Your task to perform on an android device: check the backup settings in the google photos Image 0: 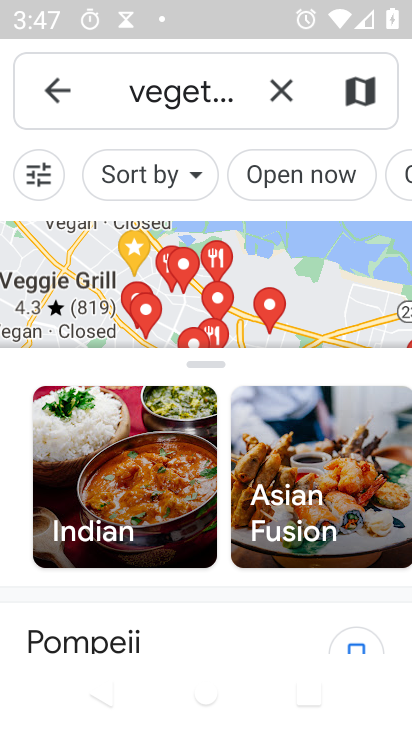
Step 0: press home button
Your task to perform on an android device: check the backup settings in the google photos Image 1: 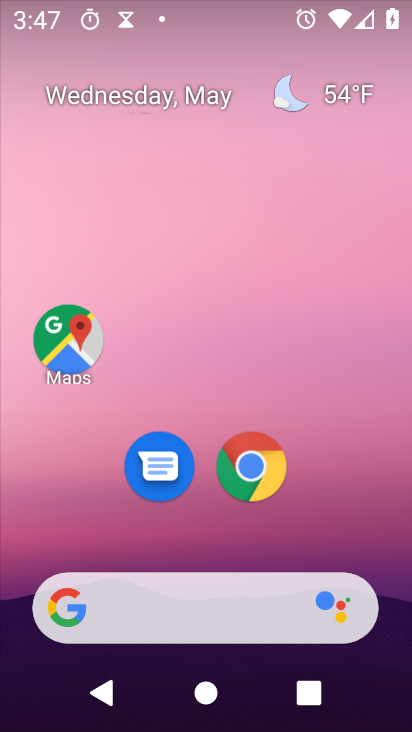
Step 1: drag from (370, 540) to (223, 84)
Your task to perform on an android device: check the backup settings in the google photos Image 2: 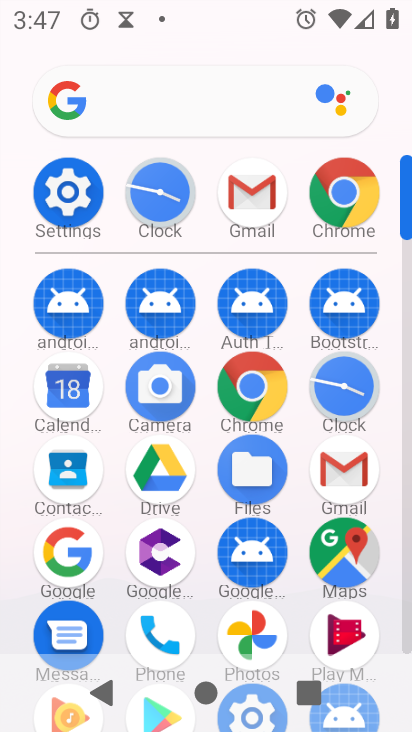
Step 2: click (243, 644)
Your task to perform on an android device: check the backup settings in the google photos Image 3: 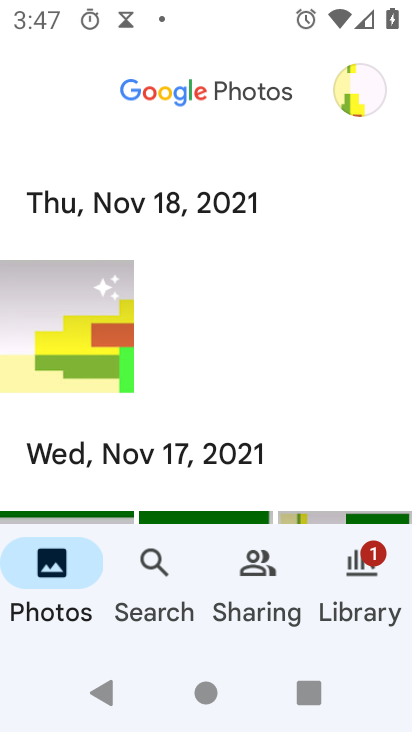
Step 3: click (371, 60)
Your task to perform on an android device: check the backup settings in the google photos Image 4: 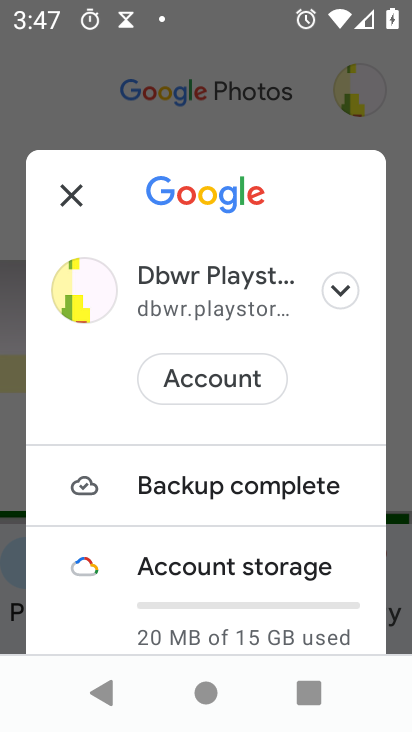
Step 4: click (237, 498)
Your task to perform on an android device: check the backup settings in the google photos Image 5: 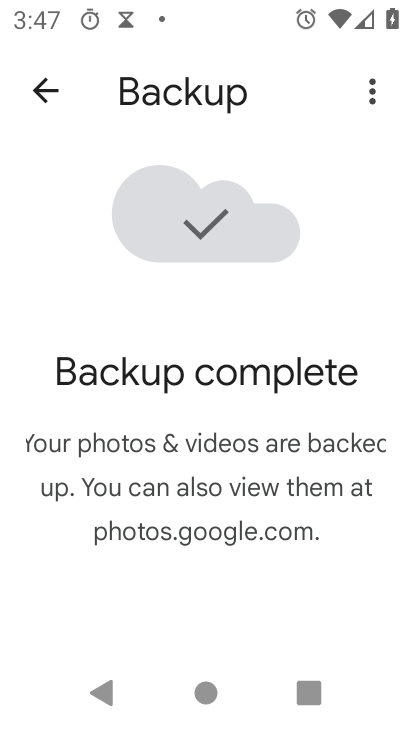
Step 5: click (41, 87)
Your task to perform on an android device: check the backup settings in the google photos Image 6: 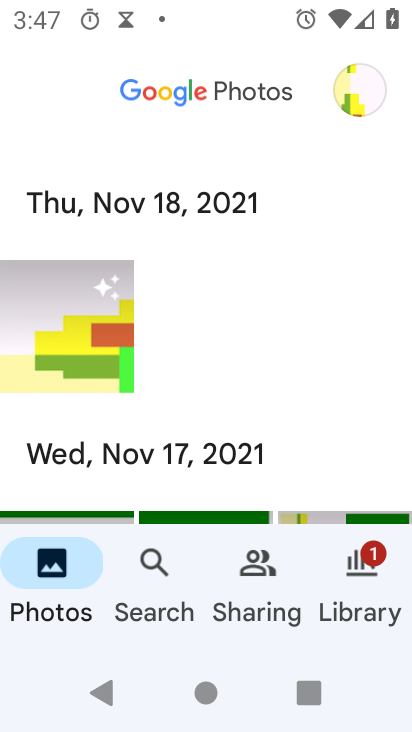
Step 6: click (354, 114)
Your task to perform on an android device: check the backup settings in the google photos Image 7: 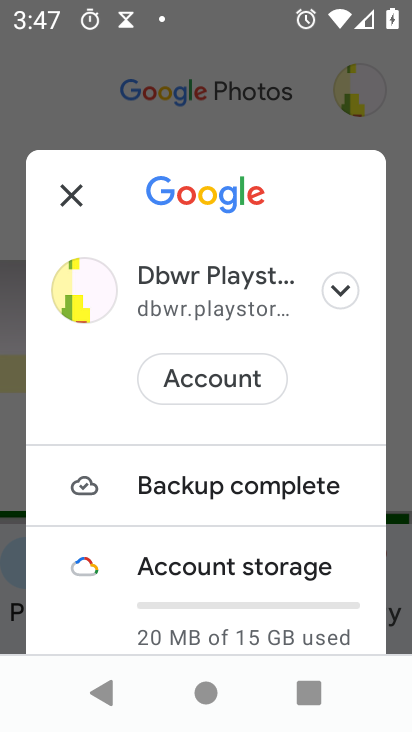
Step 7: drag from (296, 547) to (278, 219)
Your task to perform on an android device: check the backup settings in the google photos Image 8: 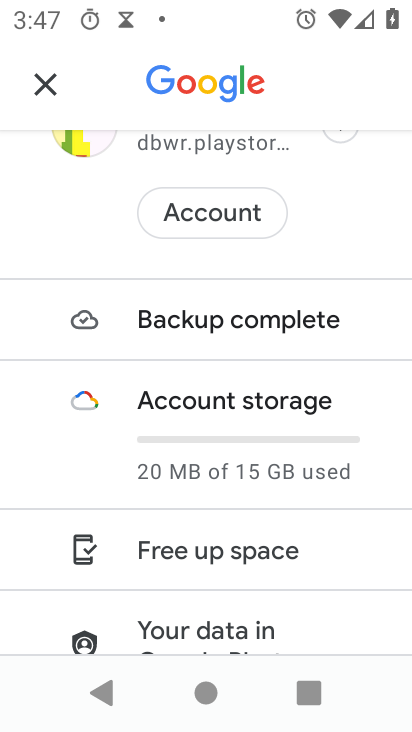
Step 8: drag from (283, 603) to (254, 247)
Your task to perform on an android device: check the backup settings in the google photos Image 9: 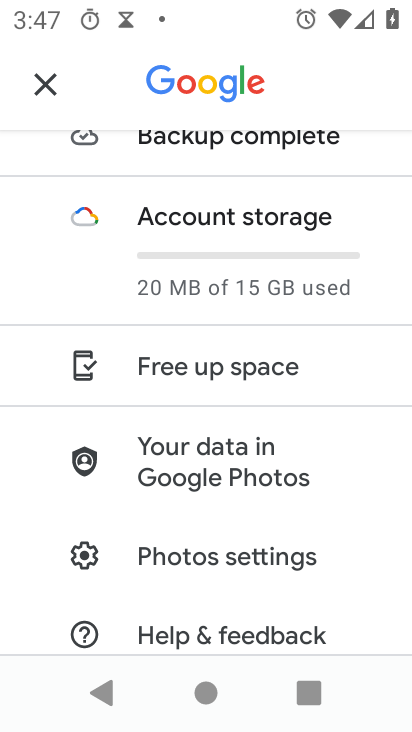
Step 9: click (264, 546)
Your task to perform on an android device: check the backup settings in the google photos Image 10: 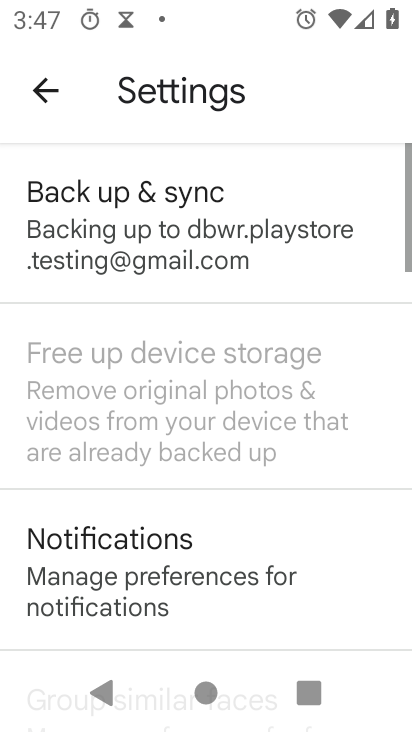
Step 10: click (287, 204)
Your task to perform on an android device: check the backup settings in the google photos Image 11: 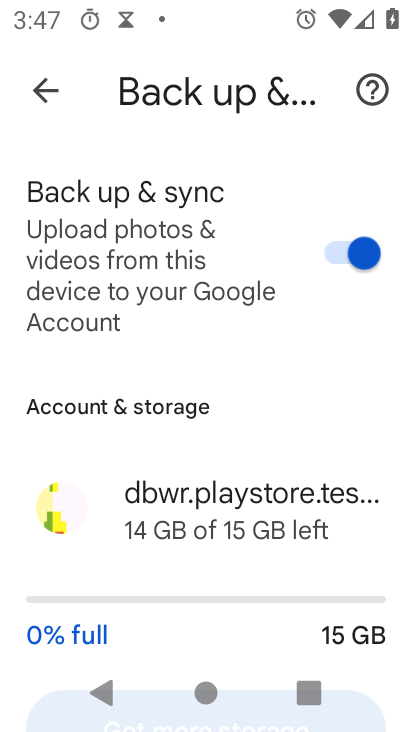
Step 11: task complete